Your task to perform on an android device: see creations saved in the google photos Image 0: 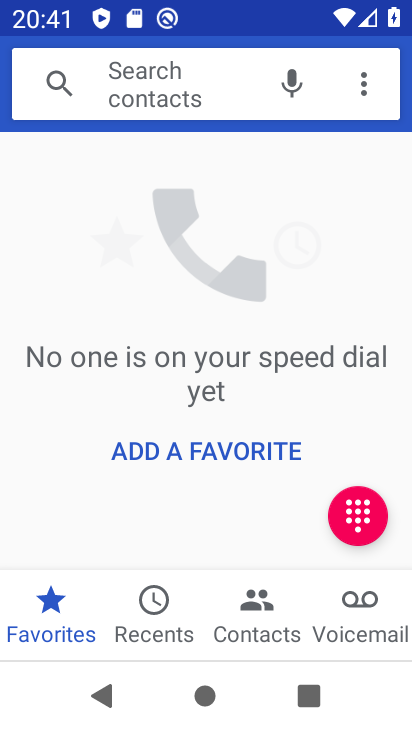
Step 0: press home button
Your task to perform on an android device: see creations saved in the google photos Image 1: 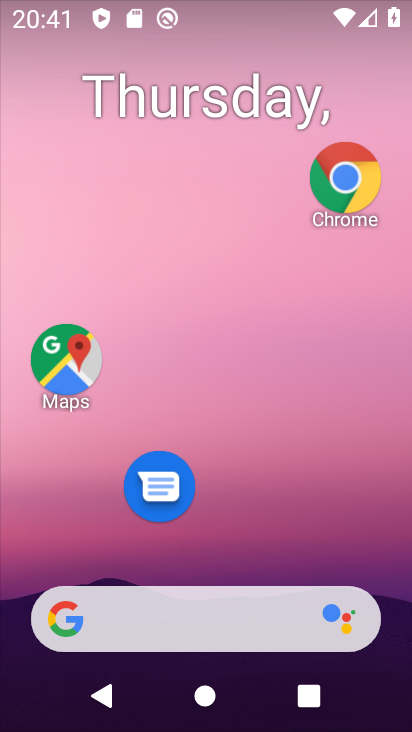
Step 1: drag from (262, 582) to (106, 36)
Your task to perform on an android device: see creations saved in the google photos Image 2: 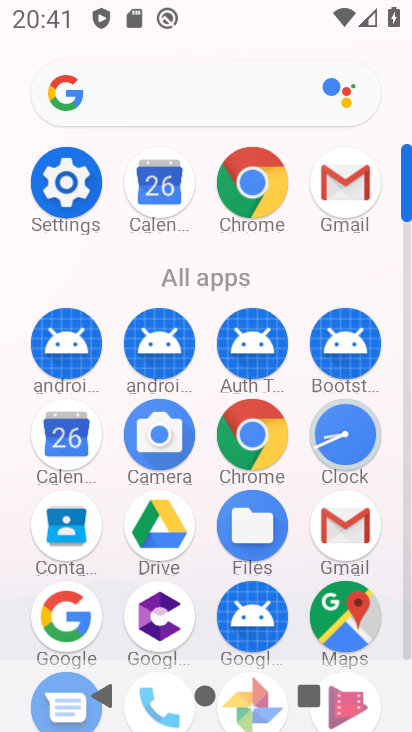
Step 2: drag from (207, 577) to (185, 236)
Your task to perform on an android device: see creations saved in the google photos Image 3: 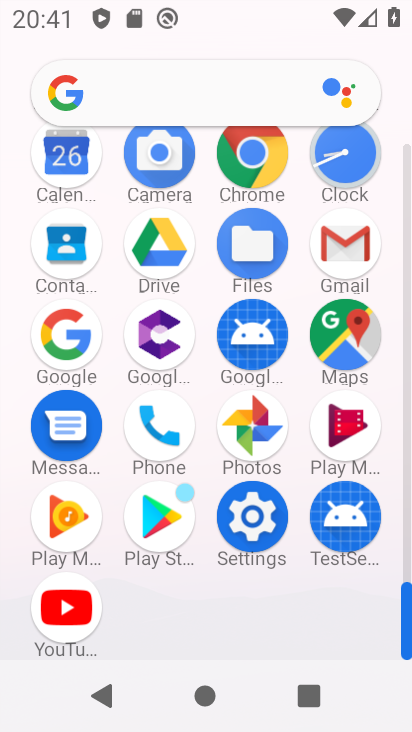
Step 3: click (258, 452)
Your task to perform on an android device: see creations saved in the google photos Image 4: 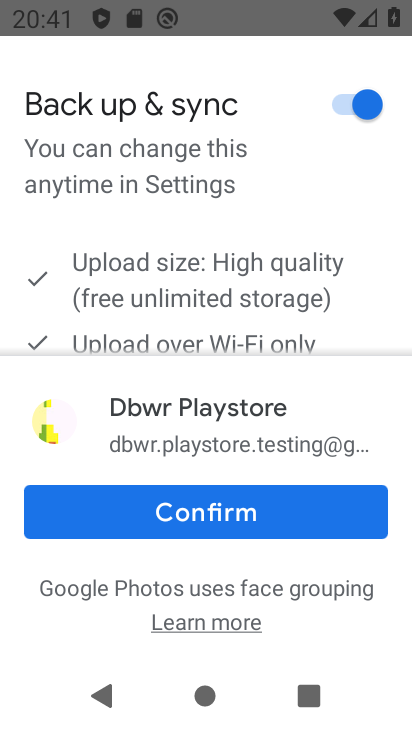
Step 4: click (268, 506)
Your task to perform on an android device: see creations saved in the google photos Image 5: 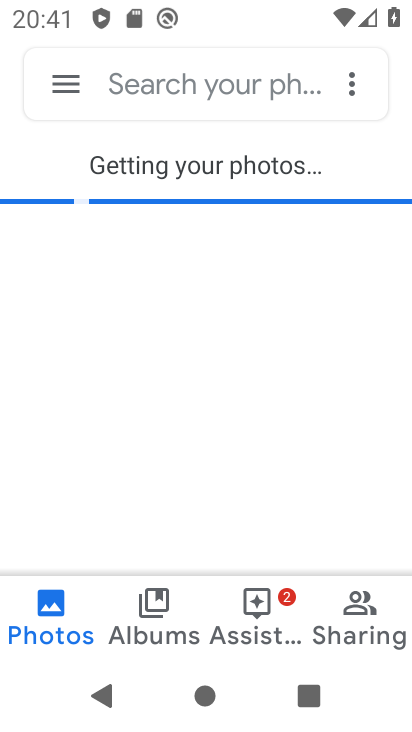
Step 5: click (214, 98)
Your task to perform on an android device: see creations saved in the google photos Image 6: 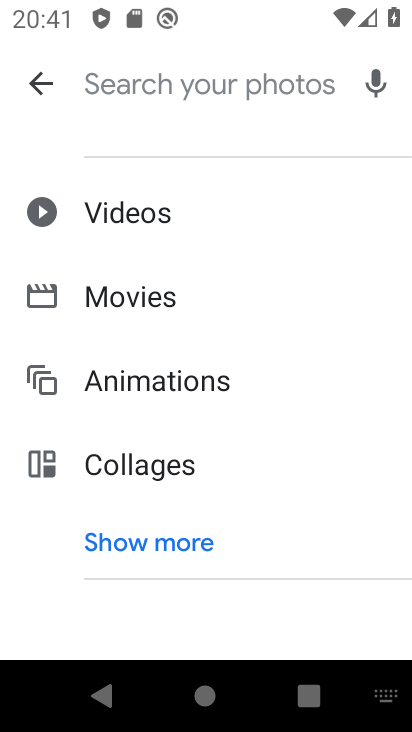
Step 6: click (154, 534)
Your task to perform on an android device: see creations saved in the google photos Image 7: 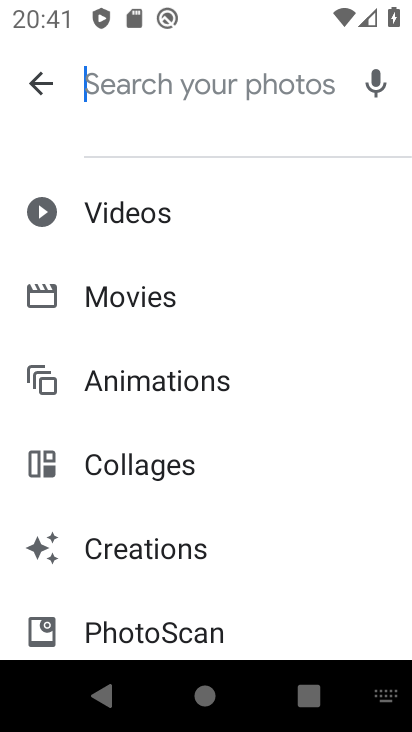
Step 7: drag from (156, 529) to (94, 241)
Your task to perform on an android device: see creations saved in the google photos Image 8: 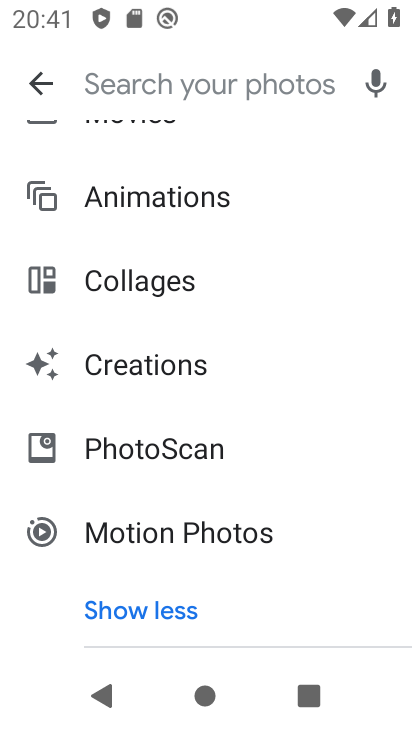
Step 8: click (94, 356)
Your task to perform on an android device: see creations saved in the google photos Image 9: 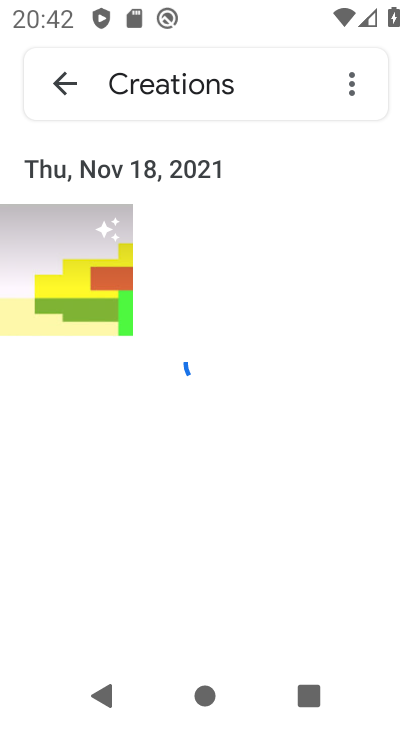
Step 9: task complete